Your task to perform on an android device: turn smart compose on in the gmail app Image 0: 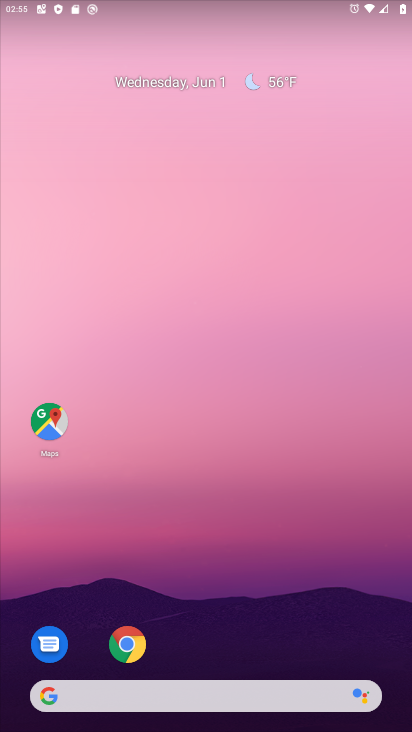
Step 0: drag from (257, 7) to (228, 462)
Your task to perform on an android device: turn smart compose on in the gmail app Image 1: 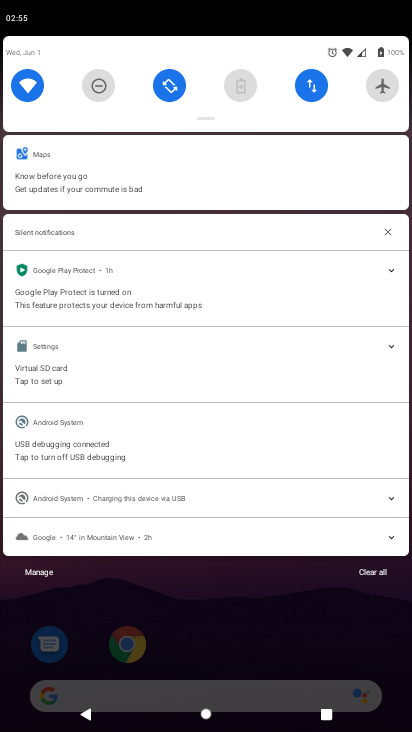
Step 1: drag from (195, 86) to (211, 488)
Your task to perform on an android device: turn smart compose on in the gmail app Image 2: 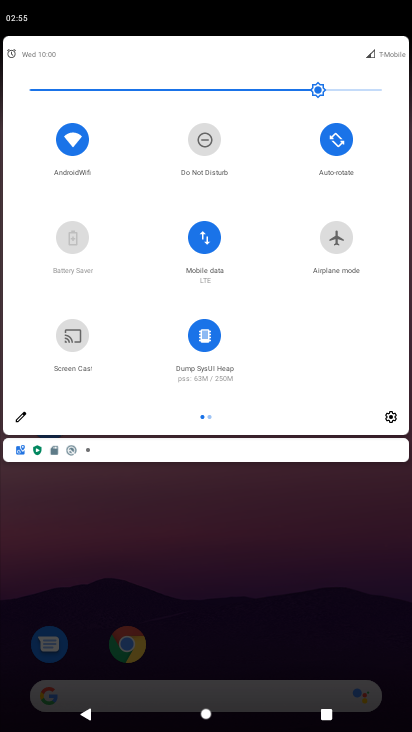
Step 2: drag from (225, 81) to (265, 455)
Your task to perform on an android device: turn smart compose on in the gmail app Image 3: 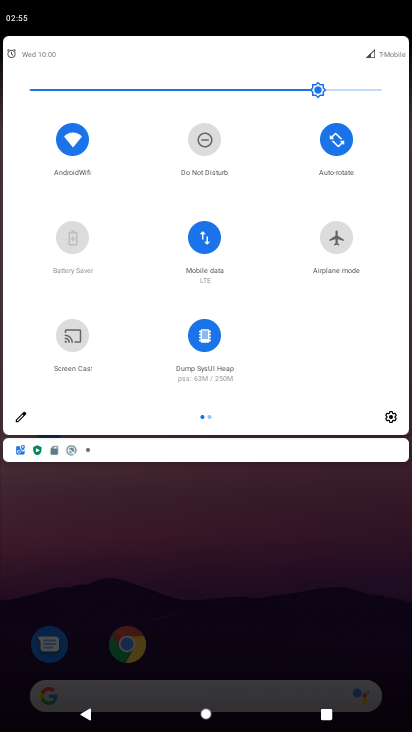
Step 3: drag from (381, 351) to (4, 412)
Your task to perform on an android device: turn smart compose on in the gmail app Image 4: 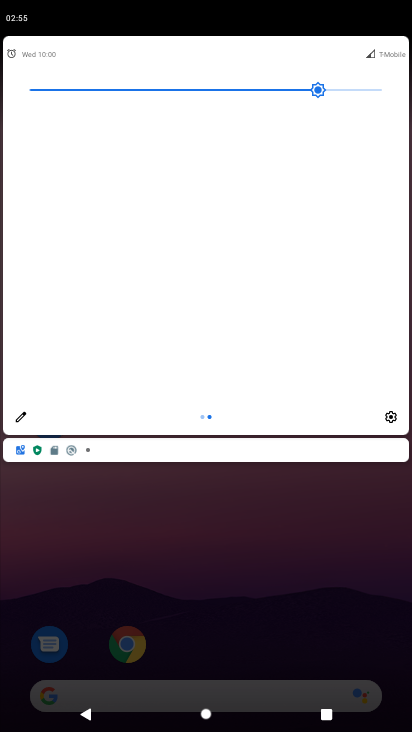
Step 4: press home button
Your task to perform on an android device: turn smart compose on in the gmail app Image 5: 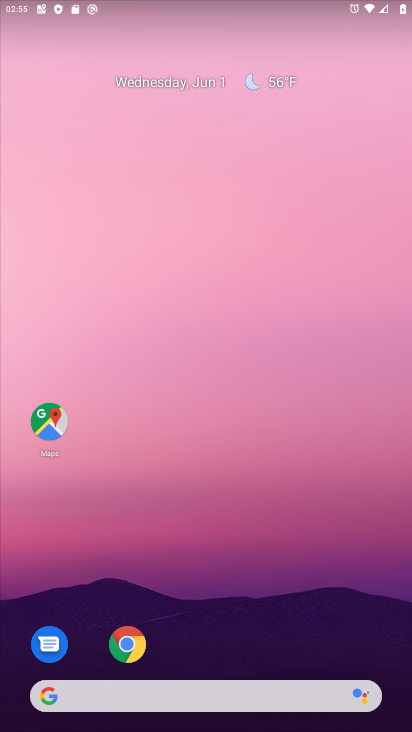
Step 5: drag from (214, 683) to (204, 190)
Your task to perform on an android device: turn smart compose on in the gmail app Image 6: 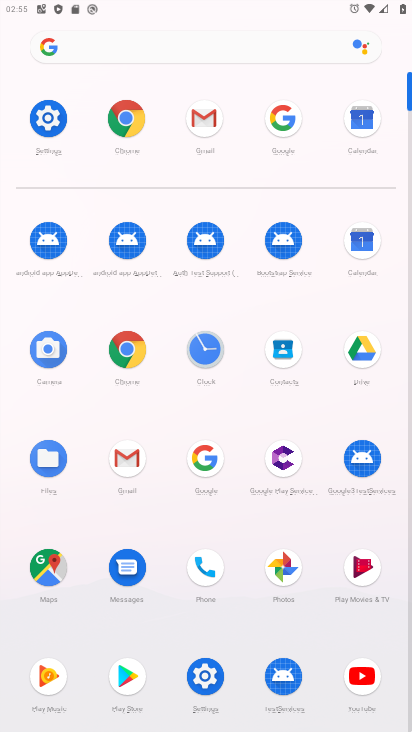
Step 6: click (197, 119)
Your task to perform on an android device: turn smart compose on in the gmail app Image 7: 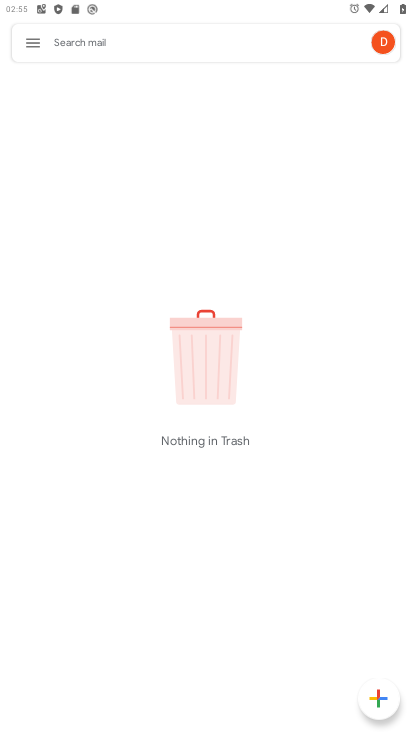
Step 7: click (40, 35)
Your task to perform on an android device: turn smart compose on in the gmail app Image 8: 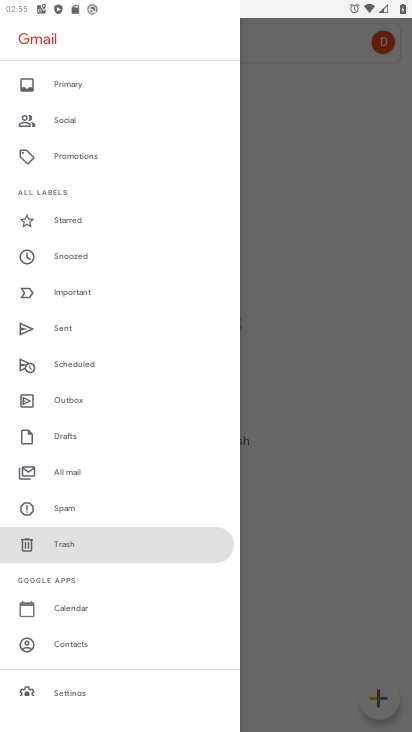
Step 8: click (61, 687)
Your task to perform on an android device: turn smart compose on in the gmail app Image 9: 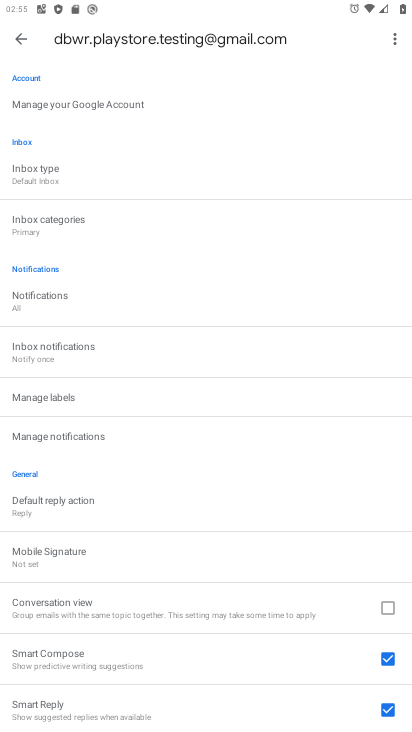
Step 9: task complete